Your task to perform on an android device: turn off location Image 0: 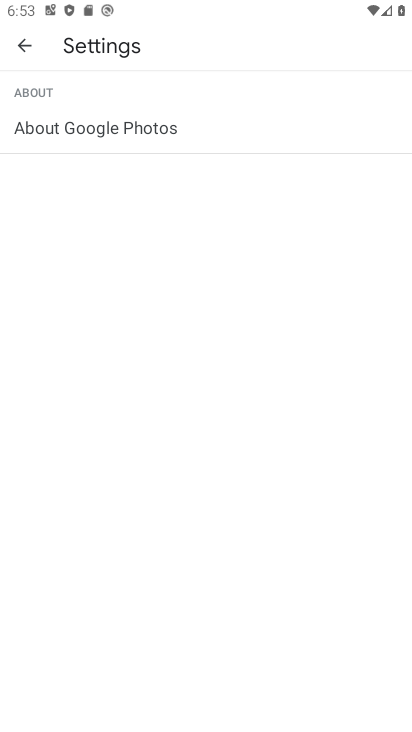
Step 0: press home button
Your task to perform on an android device: turn off location Image 1: 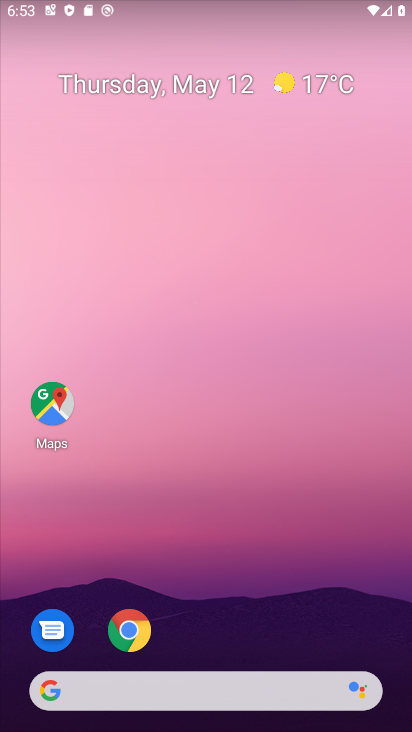
Step 1: drag from (375, 587) to (301, 100)
Your task to perform on an android device: turn off location Image 2: 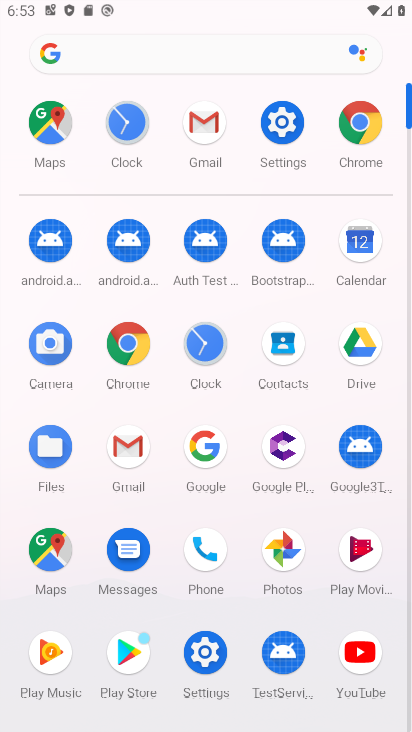
Step 2: click (291, 104)
Your task to perform on an android device: turn off location Image 3: 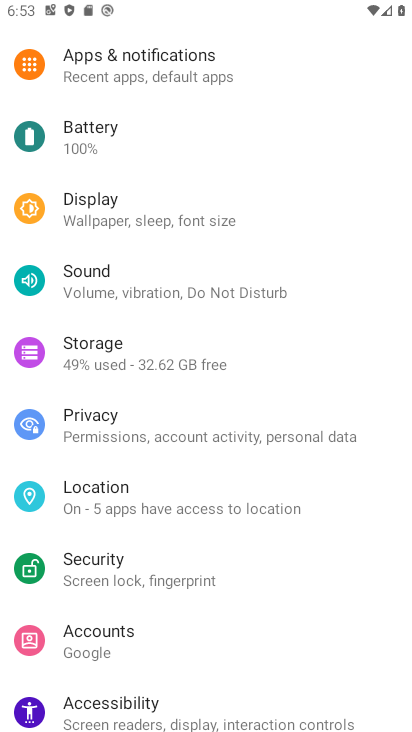
Step 3: click (115, 494)
Your task to perform on an android device: turn off location Image 4: 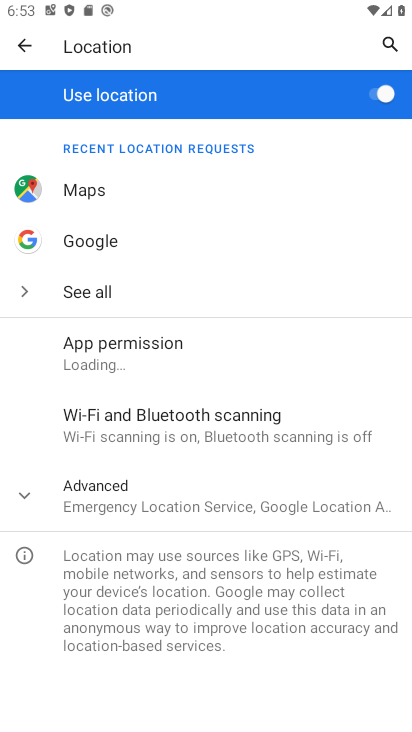
Step 4: click (364, 80)
Your task to perform on an android device: turn off location Image 5: 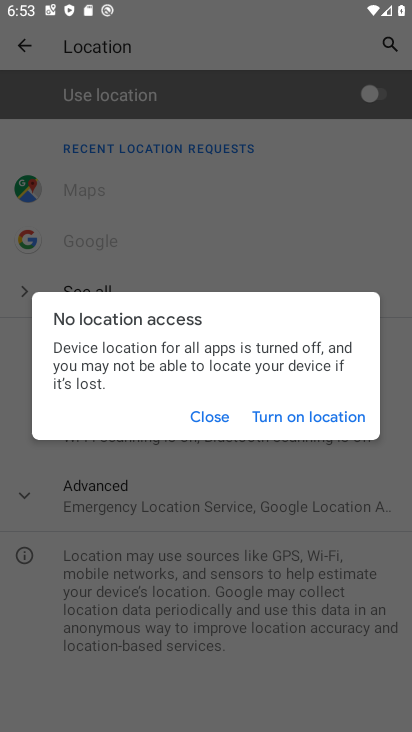
Step 5: task complete